Your task to perform on an android device: add a contact in the contacts app Image 0: 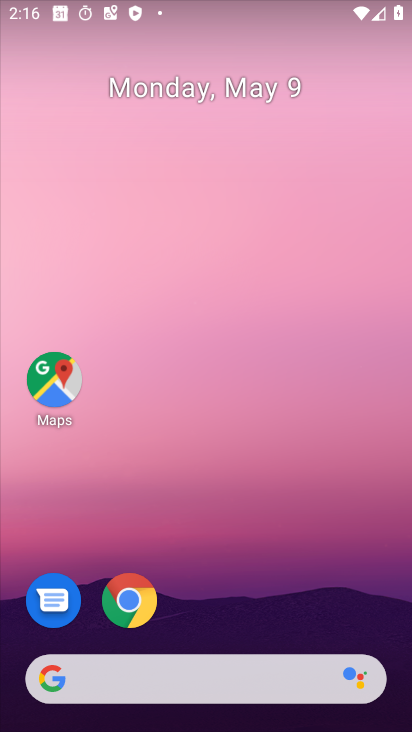
Step 0: drag from (261, 638) to (234, 273)
Your task to perform on an android device: add a contact in the contacts app Image 1: 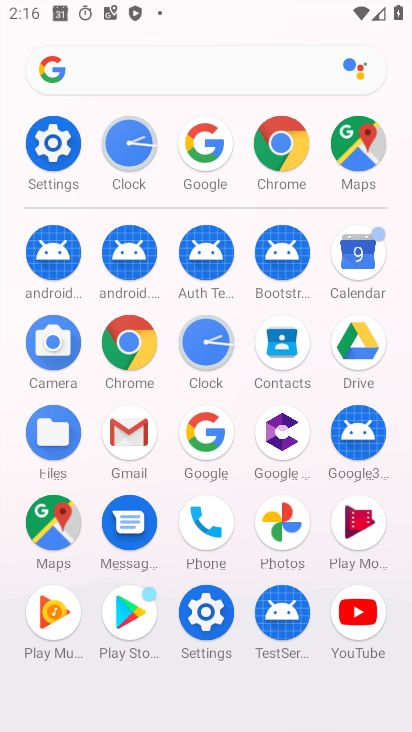
Step 1: click (267, 360)
Your task to perform on an android device: add a contact in the contacts app Image 2: 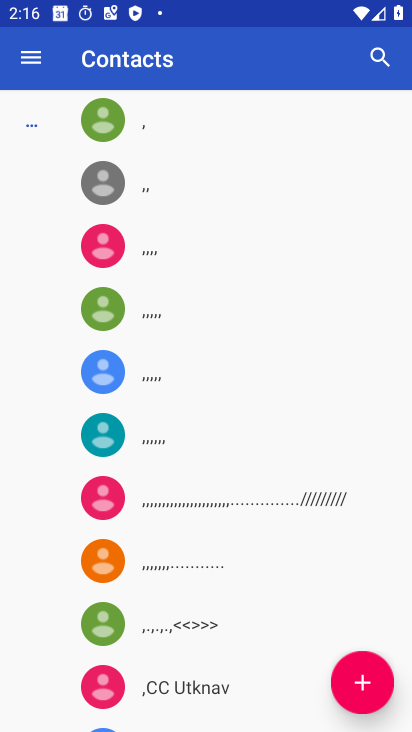
Step 2: click (373, 689)
Your task to perform on an android device: add a contact in the contacts app Image 3: 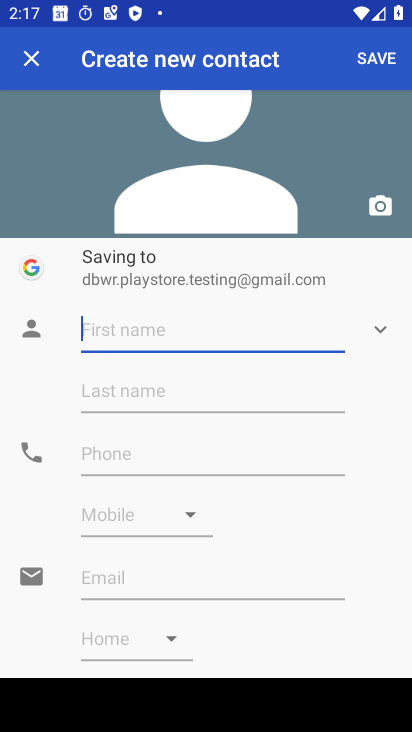
Step 3: type "gfdhfhgchg"
Your task to perform on an android device: add a contact in the contacts app Image 4: 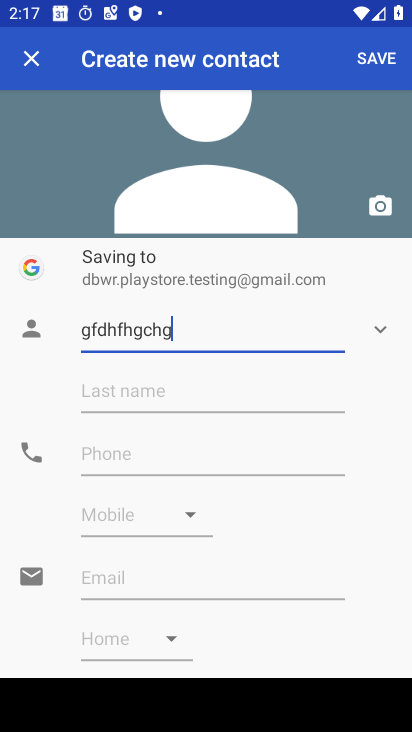
Step 4: type ""
Your task to perform on an android device: add a contact in the contacts app Image 5: 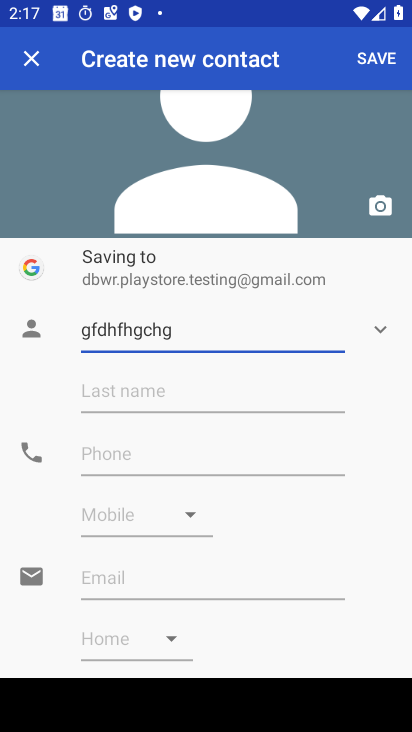
Step 5: click (397, 39)
Your task to perform on an android device: add a contact in the contacts app Image 6: 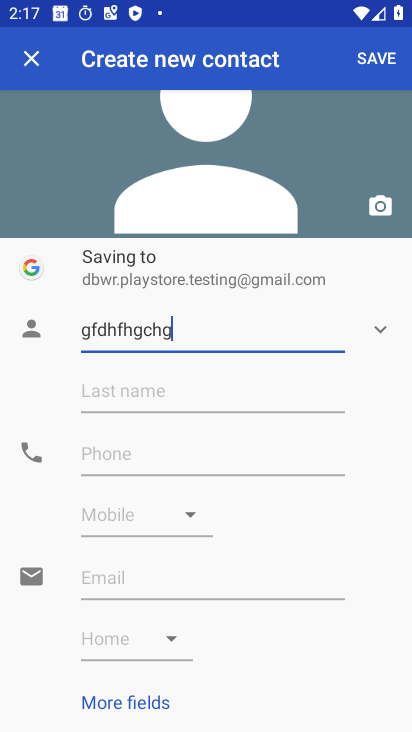
Step 6: click (394, 50)
Your task to perform on an android device: add a contact in the contacts app Image 7: 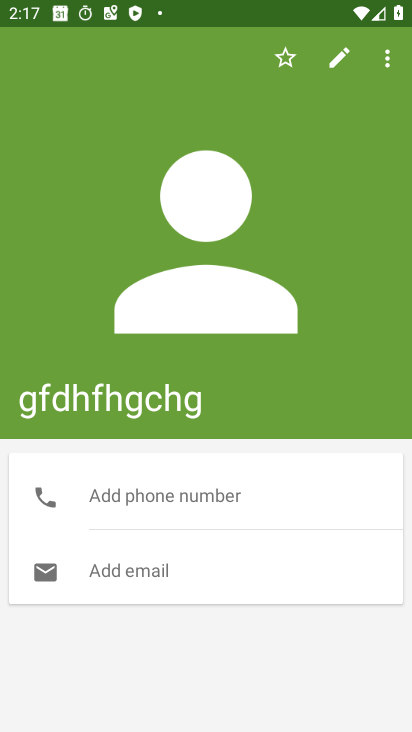
Step 7: task complete